Your task to perform on an android device: change timer sound Image 0: 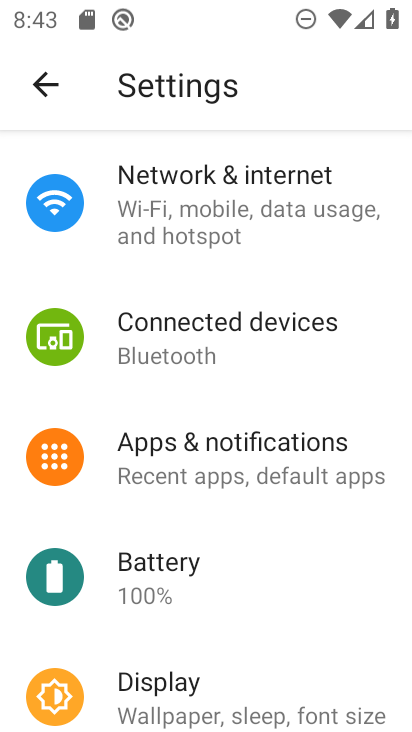
Step 0: press back button
Your task to perform on an android device: change timer sound Image 1: 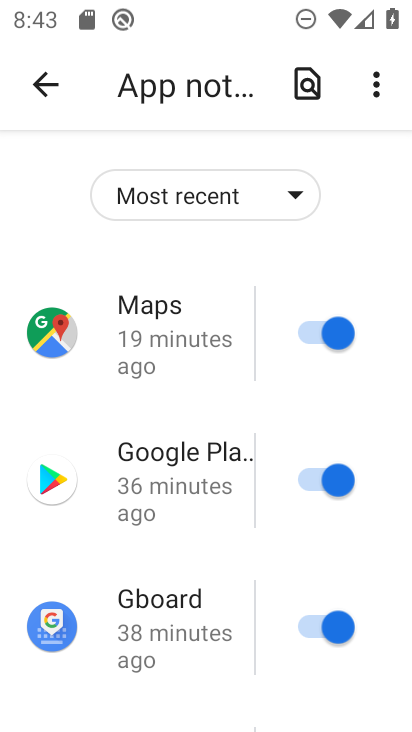
Step 1: press home button
Your task to perform on an android device: change timer sound Image 2: 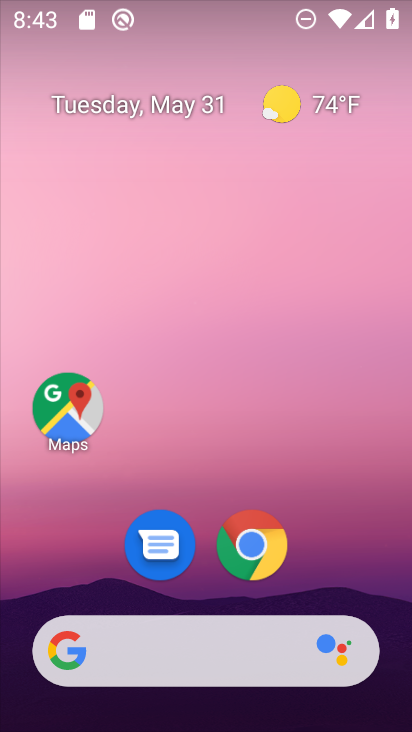
Step 2: drag from (362, 566) to (264, 7)
Your task to perform on an android device: change timer sound Image 3: 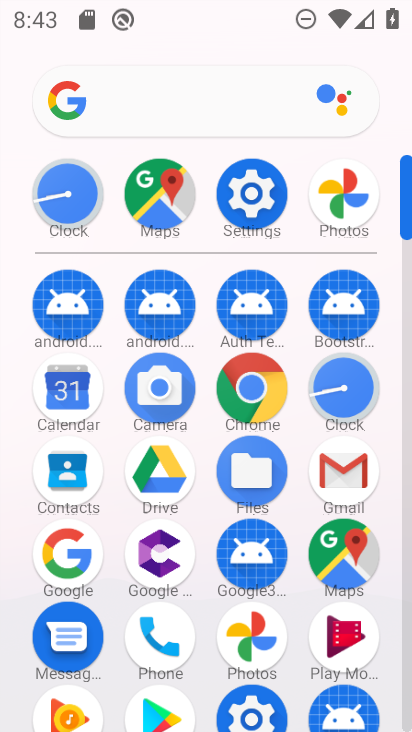
Step 3: click (339, 384)
Your task to perform on an android device: change timer sound Image 4: 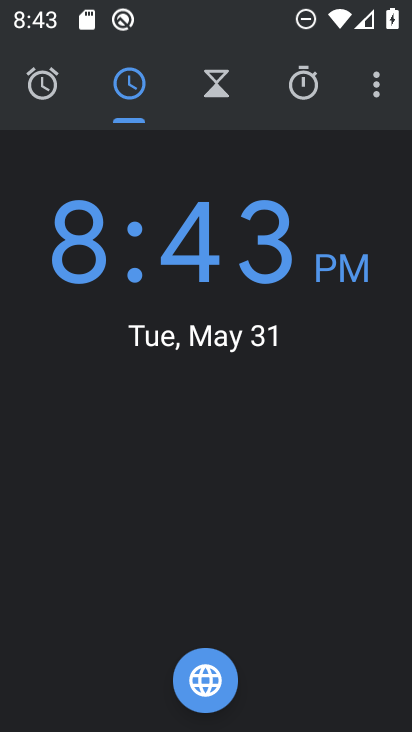
Step 4: drag from (377, 93) to (293, 159)
Your task to perform on an android device: change timer sound Image 5: 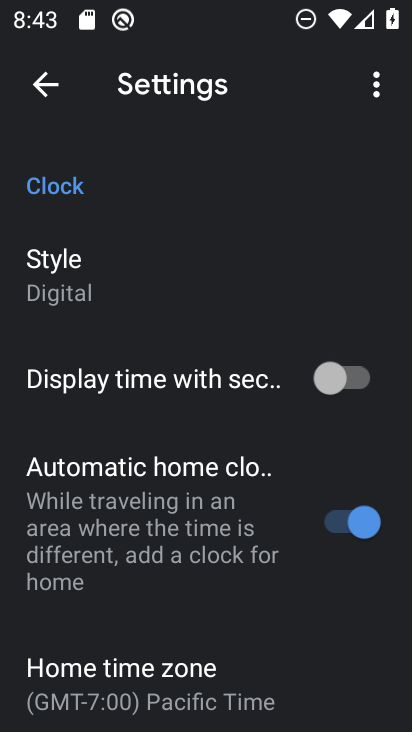
Step 5: drag from (166, 581) to (216, 164)
Your task to perform on an android device: change timer sound Image 6: 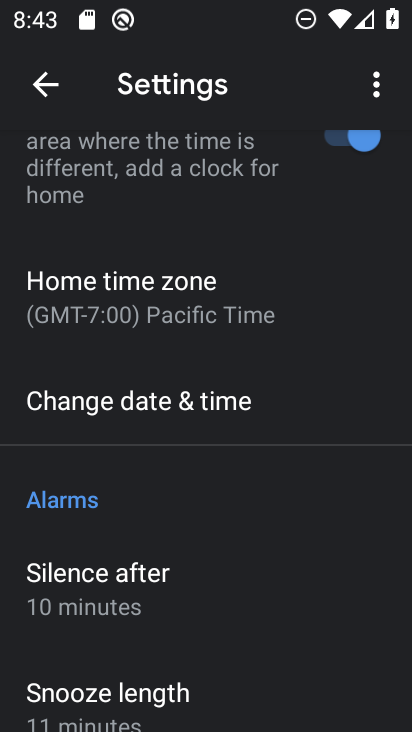
Step 6: drag from (209, 560) to (223, 234)
Your task to perform on an android device: change timer sound Image 7: 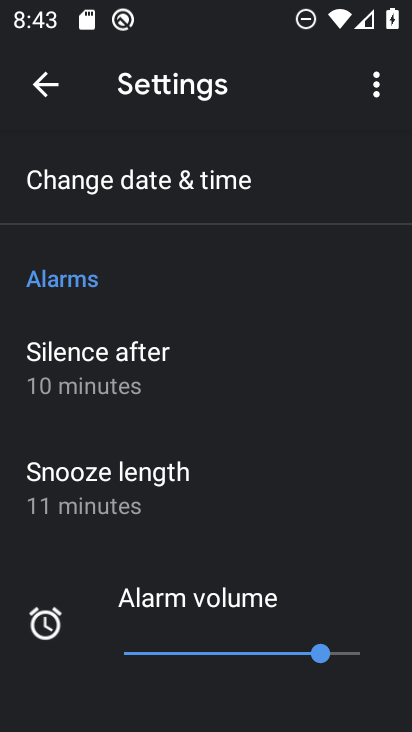
Step 7: drag from (209, 500) to (209, 121)
Your task to perform on an android device: change timer sound Image 8: 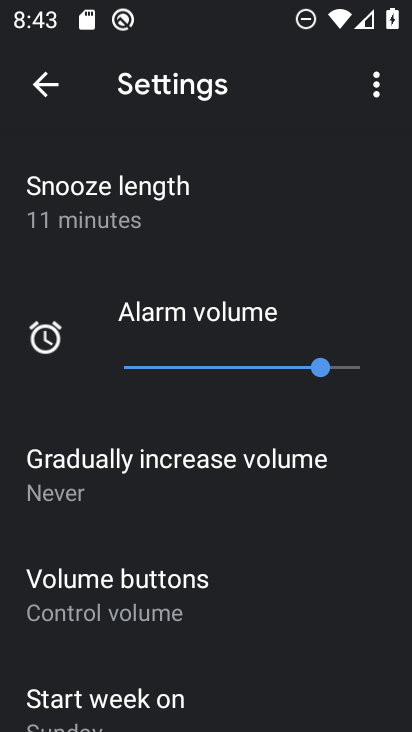
Step 8: drag from (196, 592) to (237, 171)
Your task to perform on an android device: change timer sound Image 9: 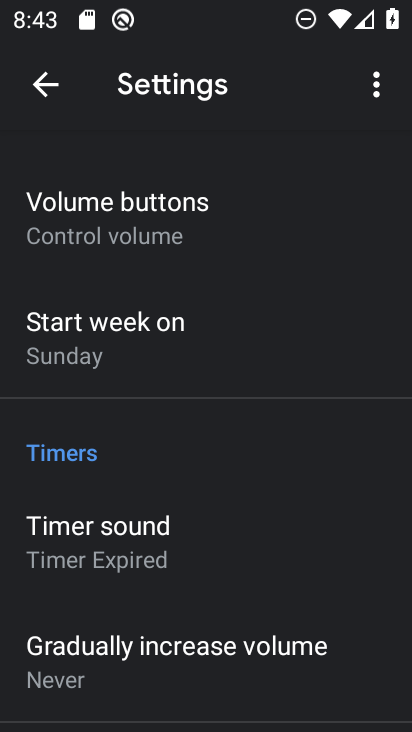
Step 9: click (186, 535)
Your task to perform on an android device: change timer sound Image 10: 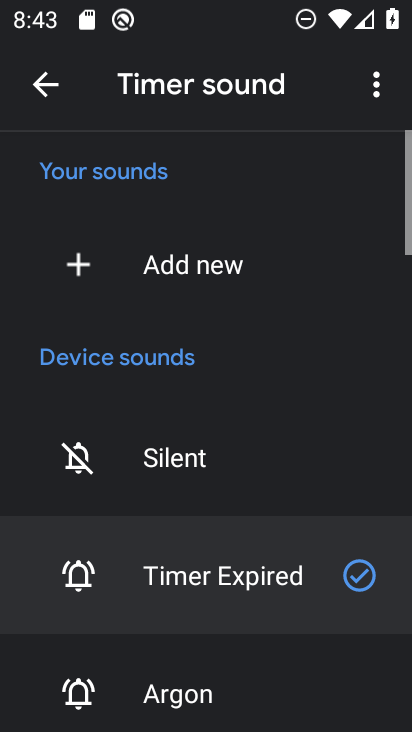
Step 10: click (156, 693)
Your task to perform on an android device: change timer sound Image 11: 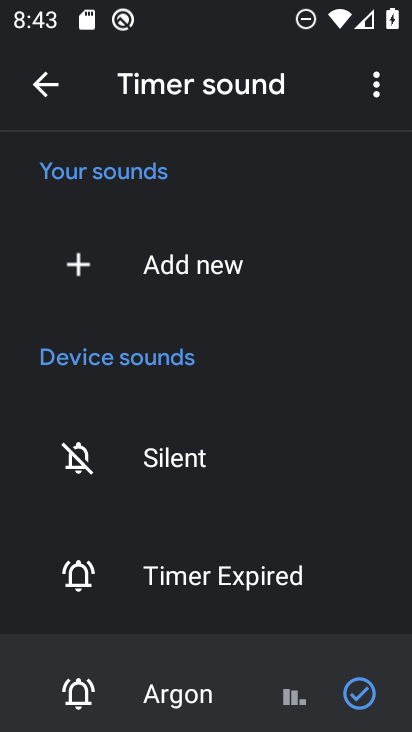
Step 11: task complete